Your task to perform on an android device: Go to Android settings Image 0: 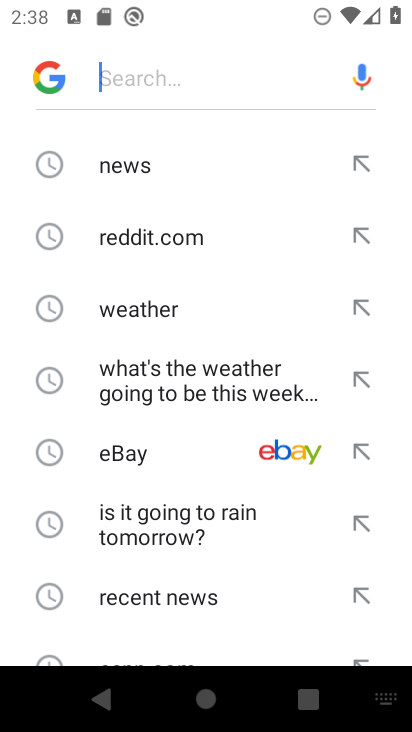
Step 0: press home button
Your task to perform on an android device: Go to Android settings Image 1: 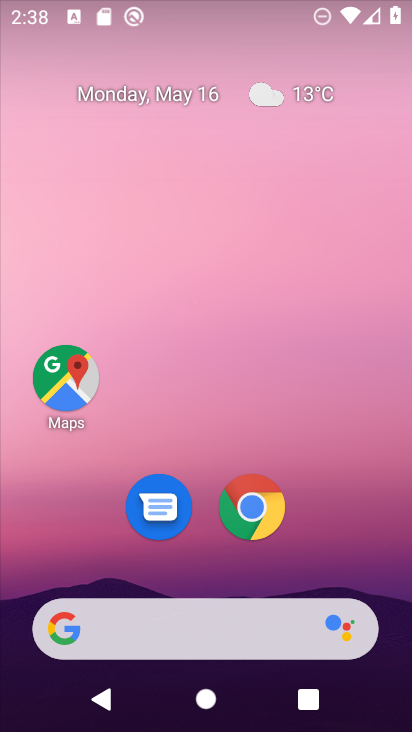
Step 1: drag from (373, 543) to (332, 168)
Your task to perform on an android device: Go to Android settings Image 2: 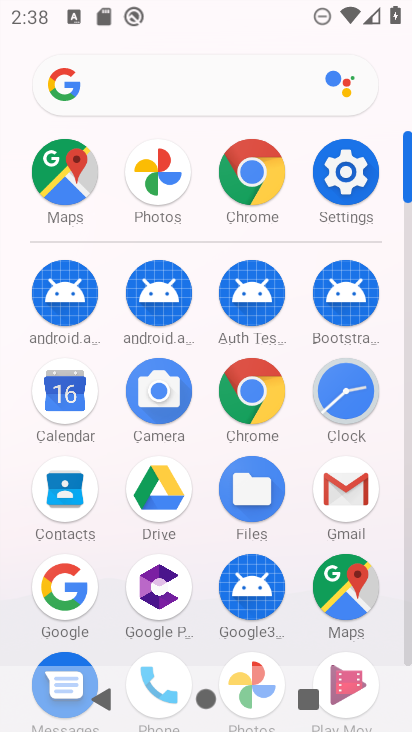
Step 2: click (355, 178)
Your task to perform on an android device: Go to Android settings Image 3: 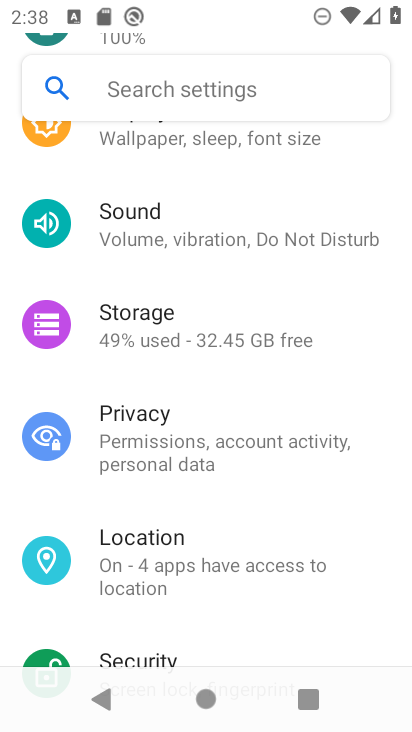
Step 3: task complete